Your task to perform on an android device: Open Youtube and go to "Your channel" Image 0: 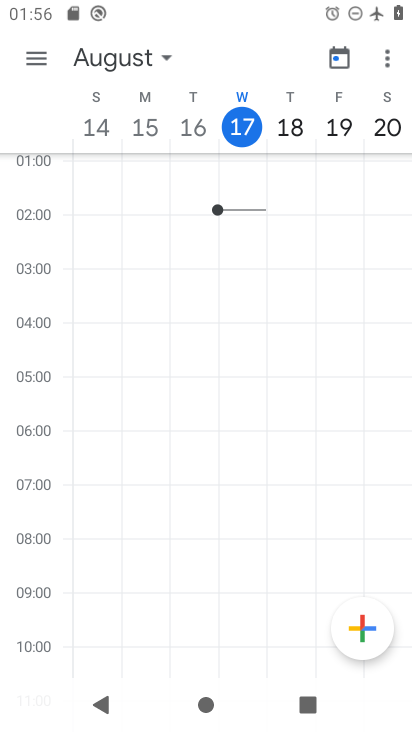
Step 0: press home button
Your task to perform on an android device: Open Youtube and go to "Your channel" Image 1: 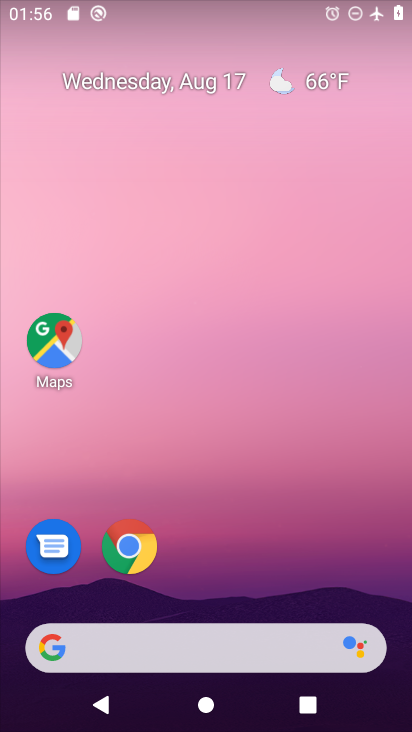
Step 1: drag from (228, 585) to (202, 175)
Your task to perform on an android device: Open Youtube and go to "Your channel" Image 2: 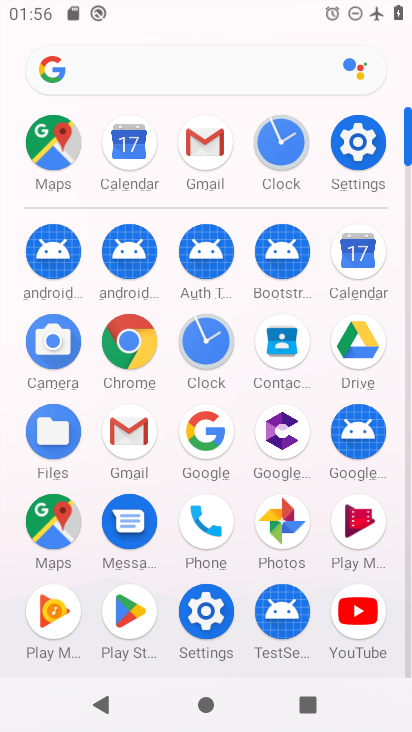
Step 2: click (358, 609)
Your task to perform on an android device: Open Youtube and go to "Your channel" Image 3: 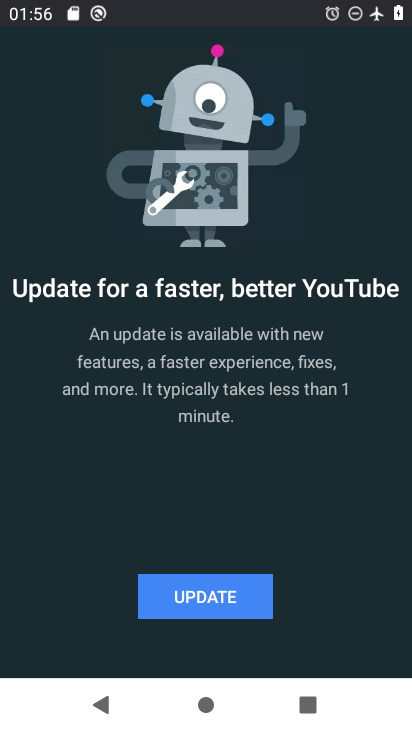
Step 3: click (210, 600)
Your task to perform on an android device: Open Youtube and go to "Your channel" Image 4: 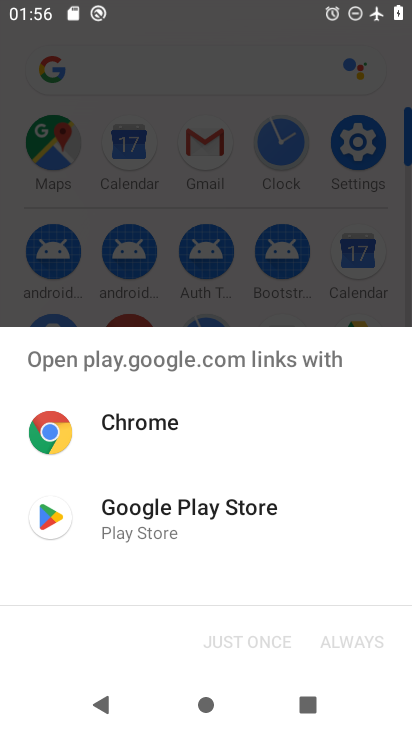
Step 4: click (145, 521)
Your task to perform on an android device: Open Youtube and go to "Your channel" Image 5: 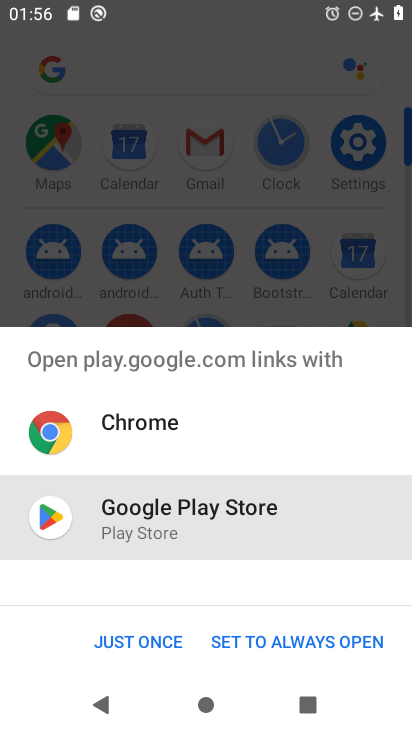
Step 5: click (149, 641)
Your task to perform on an android device: Open Youtube and go to "Your channel" Image 6: 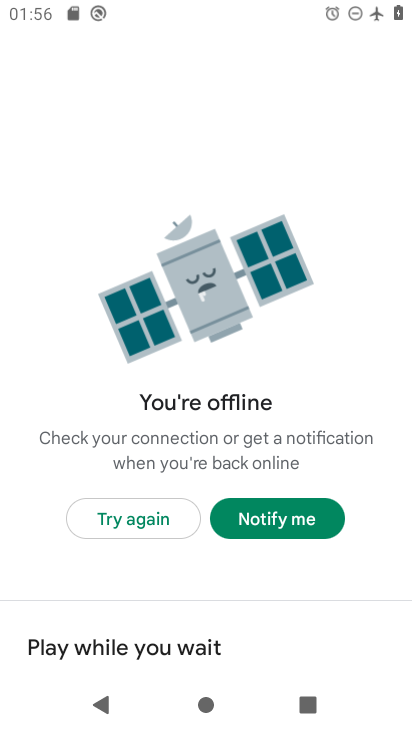
Step 6: click (137, 525)
Your task to perform on an android device: Open Youtube and go to "Your channel" Image 7: 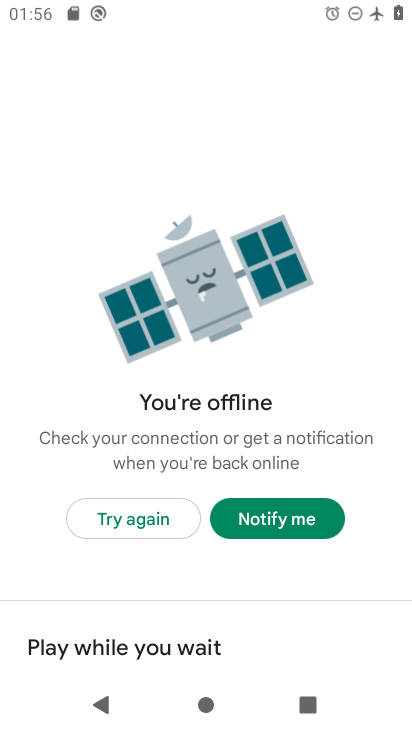
Step 7: task complete